Your task to perform on an android device: turn off picture-in-picture Image 0: 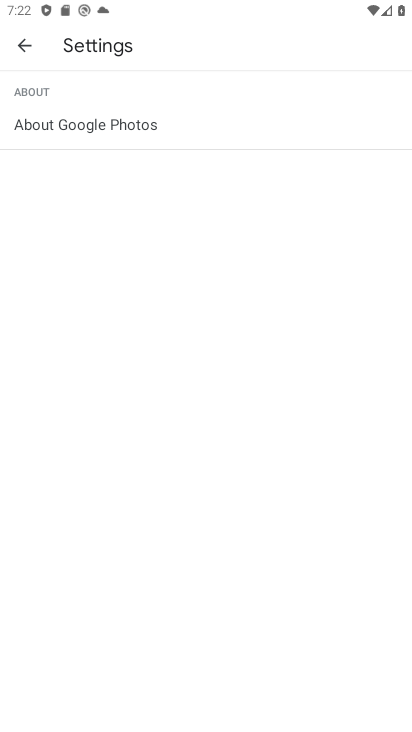
Step 0: press back button
Your task to perform on an android device: turn off picture-in-picture Image 1: 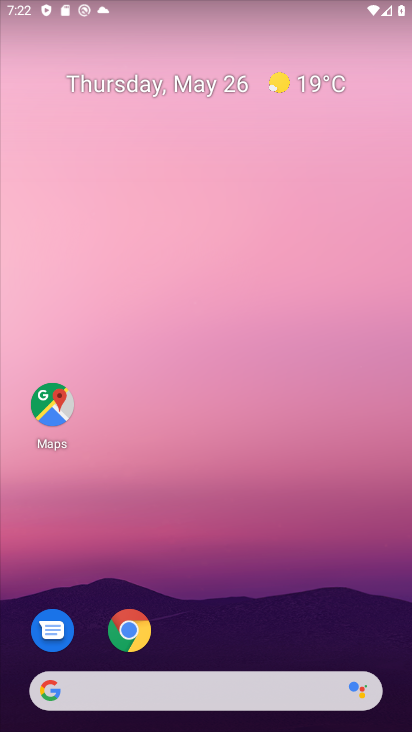
Step 1: click (130, 631)
Your task to perform on an android device: turn off picture-in-picture Image 2: 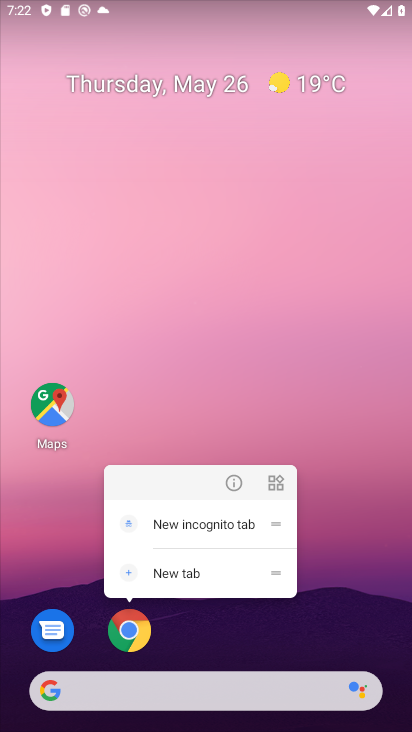
Step 2: click (237, 480)
Your task to perform on an android device: turn off picture-in-picture Image 3: 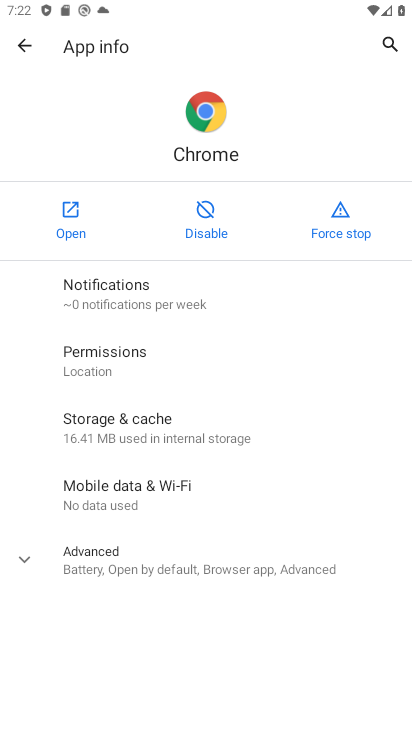
Step 3: click (116, 570)
Your task to perform on an android device: turn off picture-in-picture Image 4: 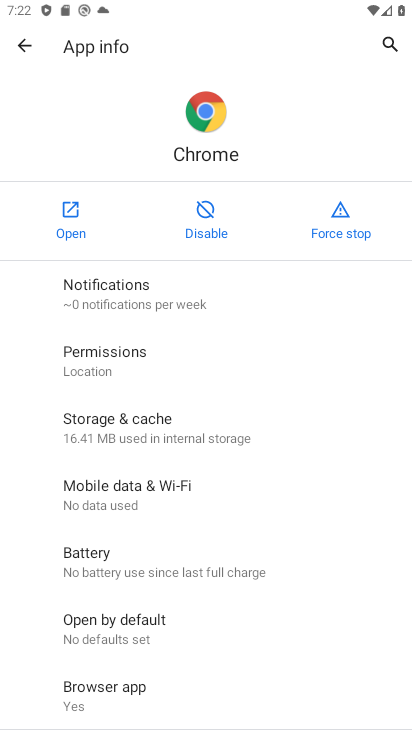
Step 4: drag from (124, 590) to (156, 511)
Your task to perform on an android device: turn off picture-in-picture Image 5: 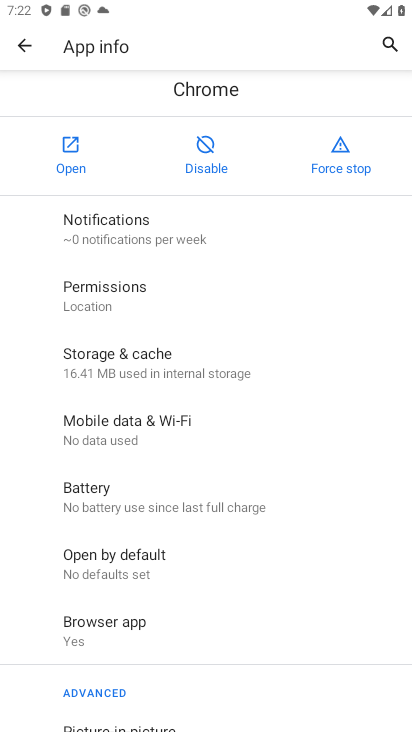
Step 5: drag from (135, 595) to (176, 473)
Your task to perform on an android device: turn off picture-in-picture Image 6: 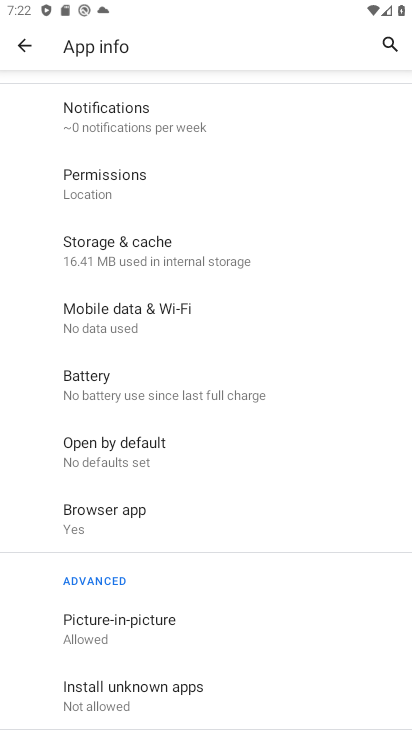
Step 6: click (136, 618)
Your task to perform on an android device: turn off picture-in-picture Image 7: 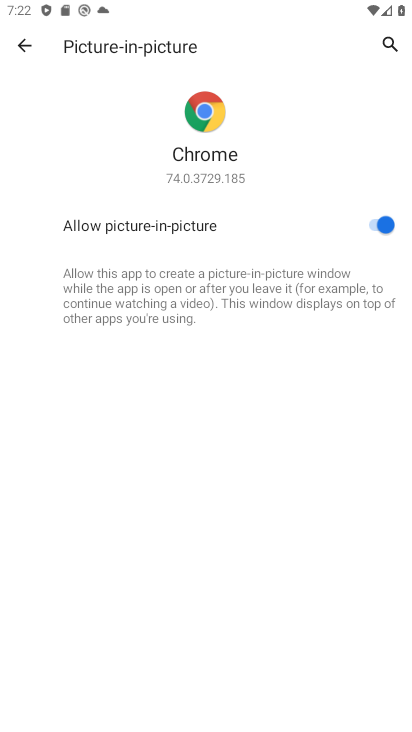
Step 7: click (384, 223)
Your task to perform on an android device: turn off picture-in-picture Image 8: 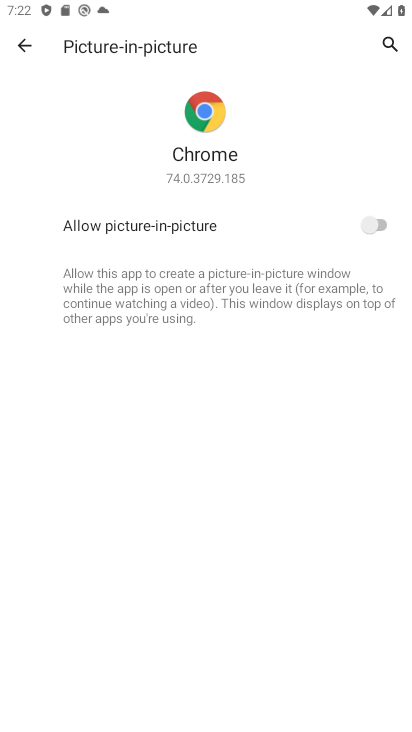
Step 8: task complete